Your task to perform on an android device: open chrome and create a bookmark for the current page Image 0: 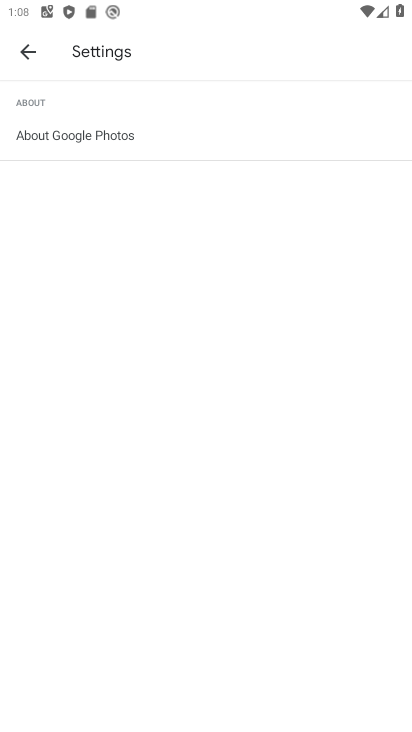
Step 0: press home button
Your task to perform on an android device: open chrome and create a bookmark for the current page Image 1: 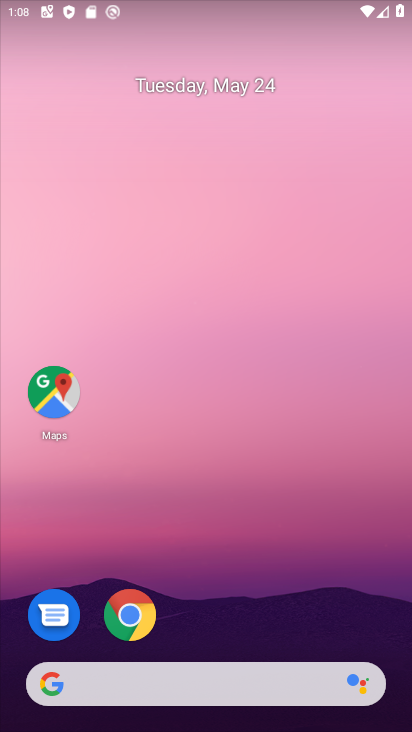
Step 1: click (125, 610)
Your task to perform on an android device: open chrome and create a bookmark for the current page Image 2: 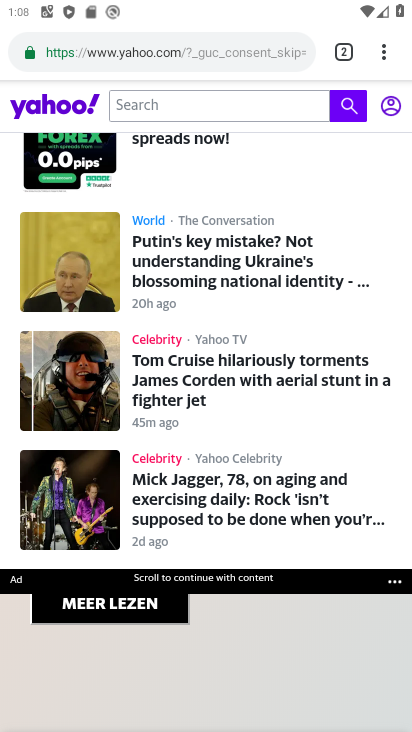
Step 2: click (379, 47)
Your task to perform on an android device: open chrome and create a bookmark for the current page Image 3: 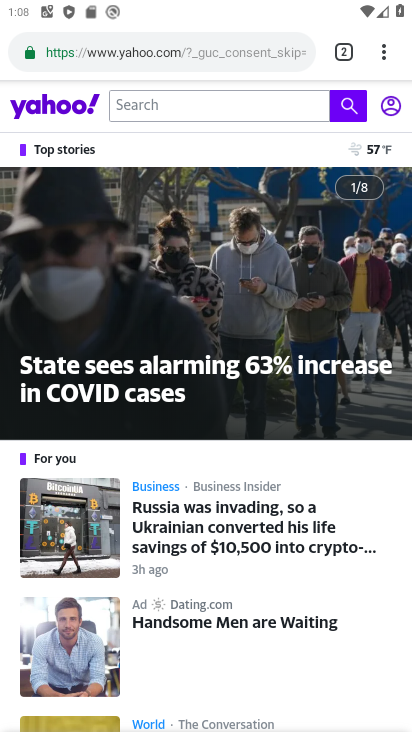
Step 3: click (384, 51)
Your task to perform on an android device: open chrome and create a bookmark for the current page Image 4: 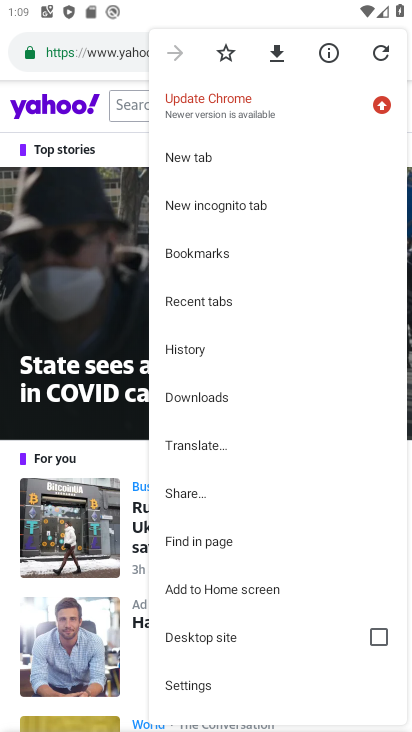
Step 4: click (228, 54)
Your task to perform on an android device: open chrome and create a bookmark for the current page Image 5: 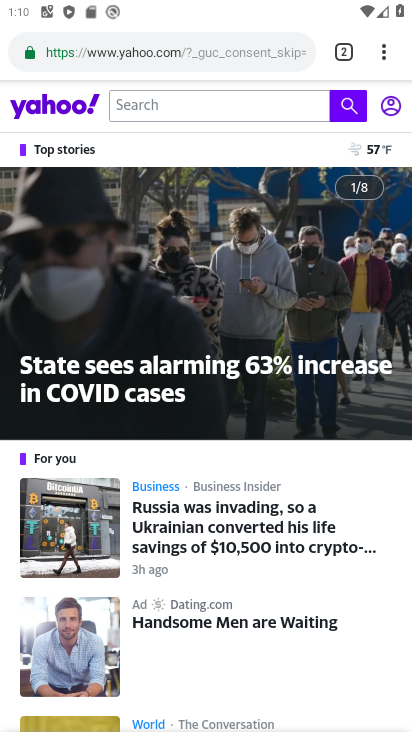
Step 5: task complete